Your task to perform on an android device: set an alarm Image 0: 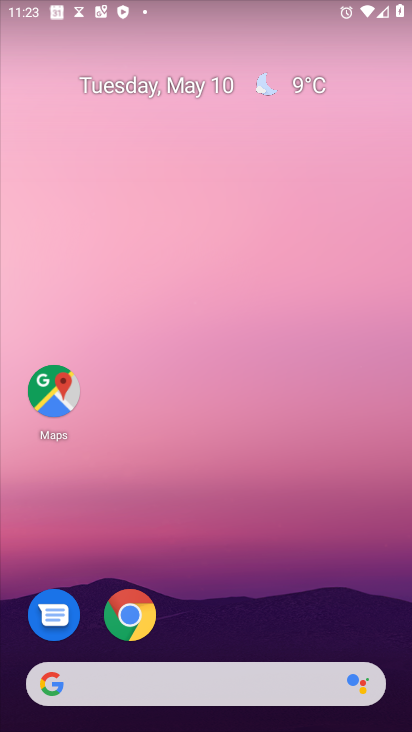
Step 0: drag from (210, 647) to (262, 161)
Your task to perform on an android device: set an alarm Image 1: 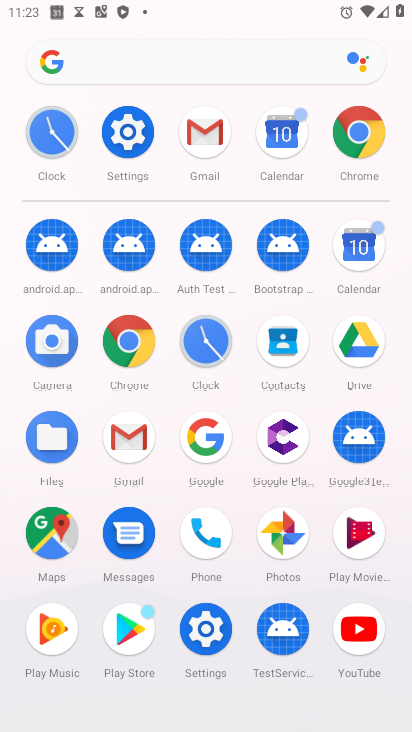
Step 1: click (203, 336)
Your task to perform on an android device: set an alarm Image 2: 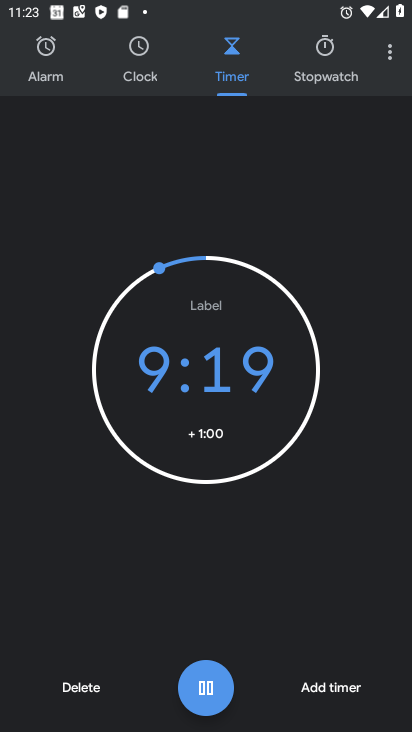
Step 2: click (82, 689)
Your task to perform on an android device: set an alarm Image 3: 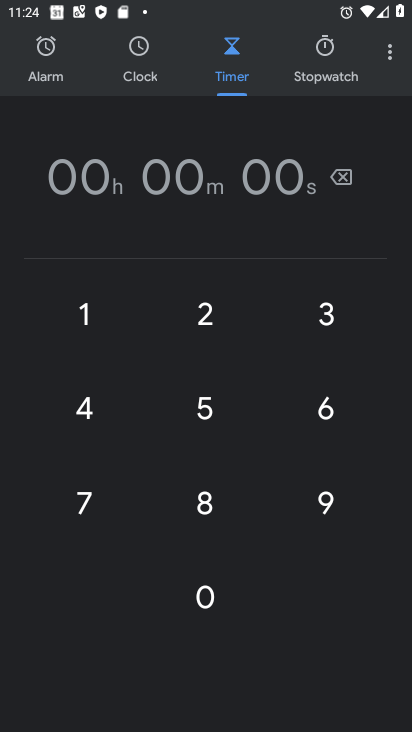
Step 3: click (56, 52)
Your task to perform on an android device: set an alarm Image 4: 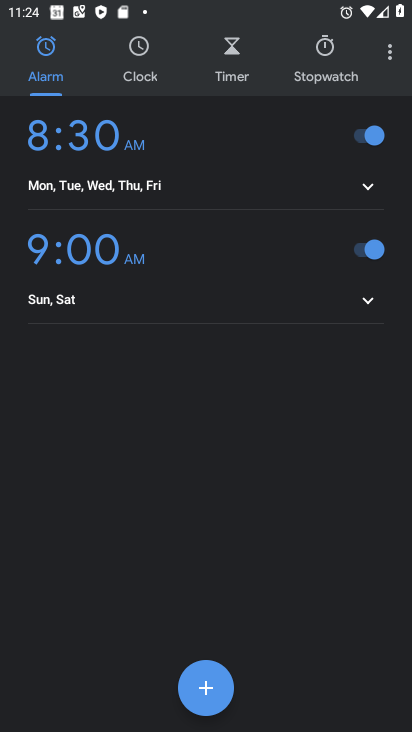
Step 4: click (212, 695)
Your task to perform on an android device: set an alarm Image 5: 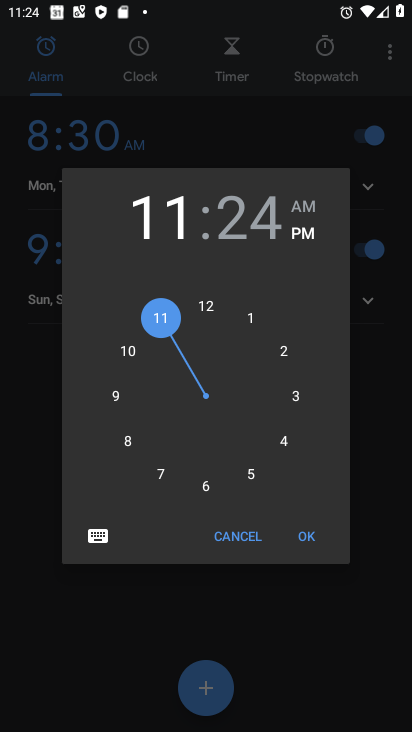
Step 5: click (312, 533)
Your task to perform on an android device: set an alarm Image 6: 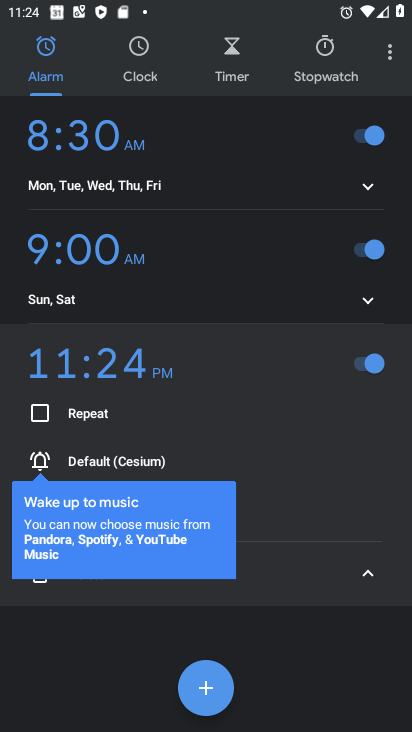
Step 6: task complete